Your task to perform on an android device: Play the last video I watched on Youtube Image 0: 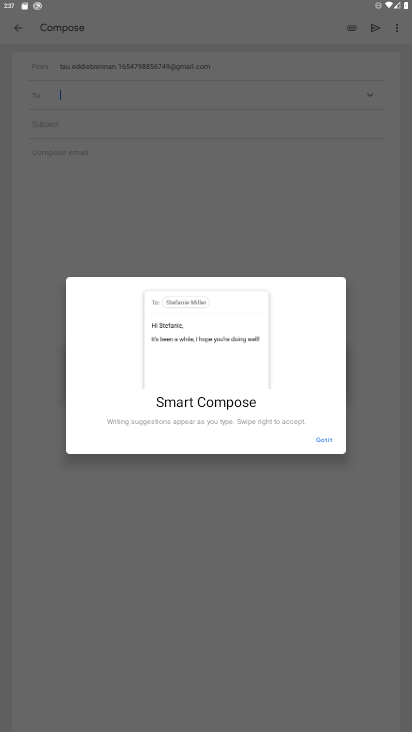
Step 0: press home button
Your task to perform on an android device: Play the last video I watched on Youtube Image 1: 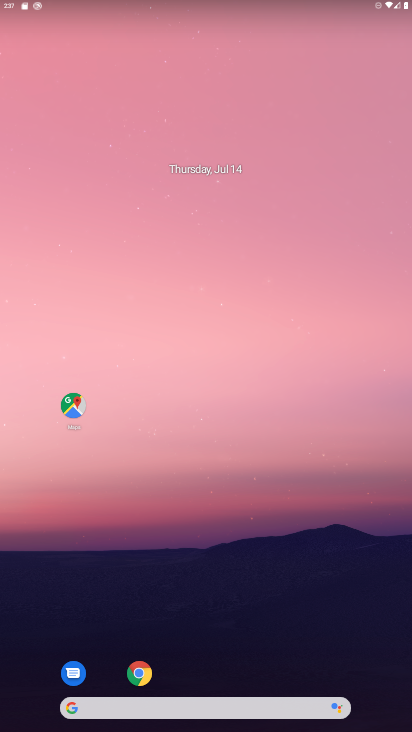
Step 1: drag from (211, 706) to (276, 201)
Your task to perform on an android device: Play the last video I watched on Youtube Image 2: 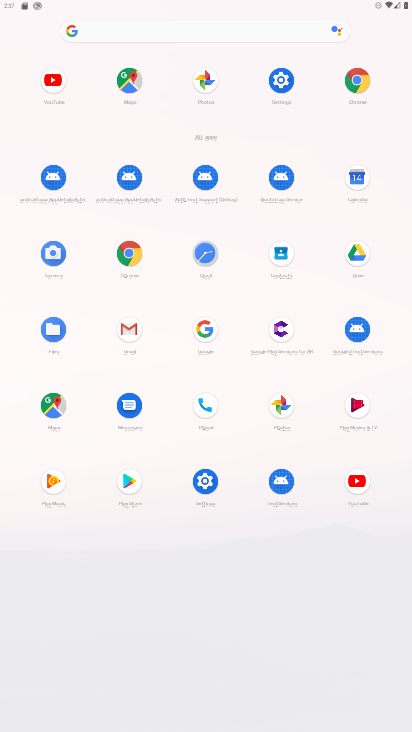
Step 2: click (361, 486)
Your task to perform on an android device: Play the last video I watched on Youtube Image 3: 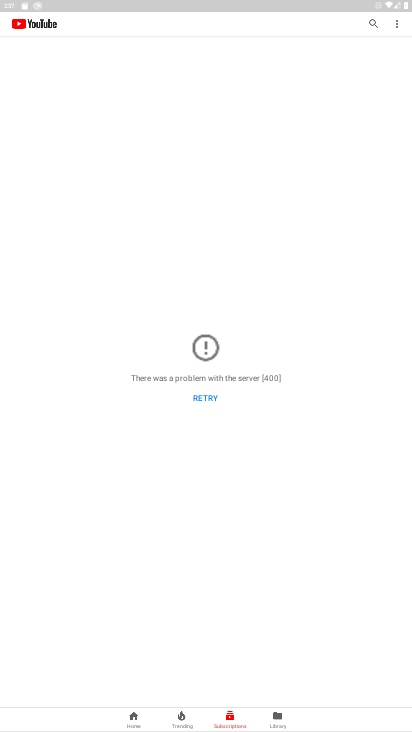
Step 3: click (270, 717)
Your task to perform on an android device: Play the last video I watched on Youtube Image 4: 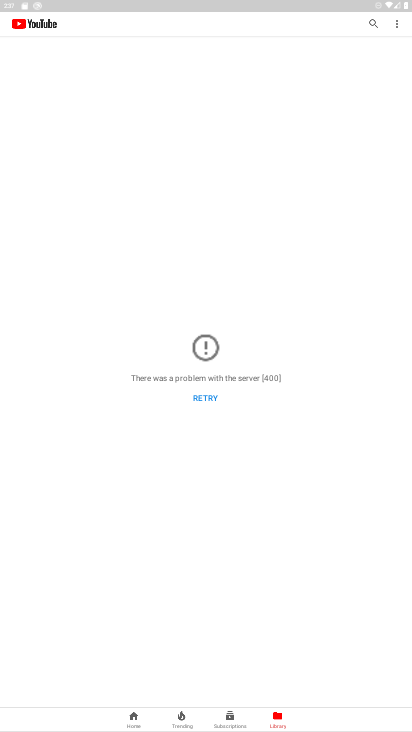
Step 4: task complete